Your task to perform on an android device: delete the emails in spam in the gmail app Image 0: 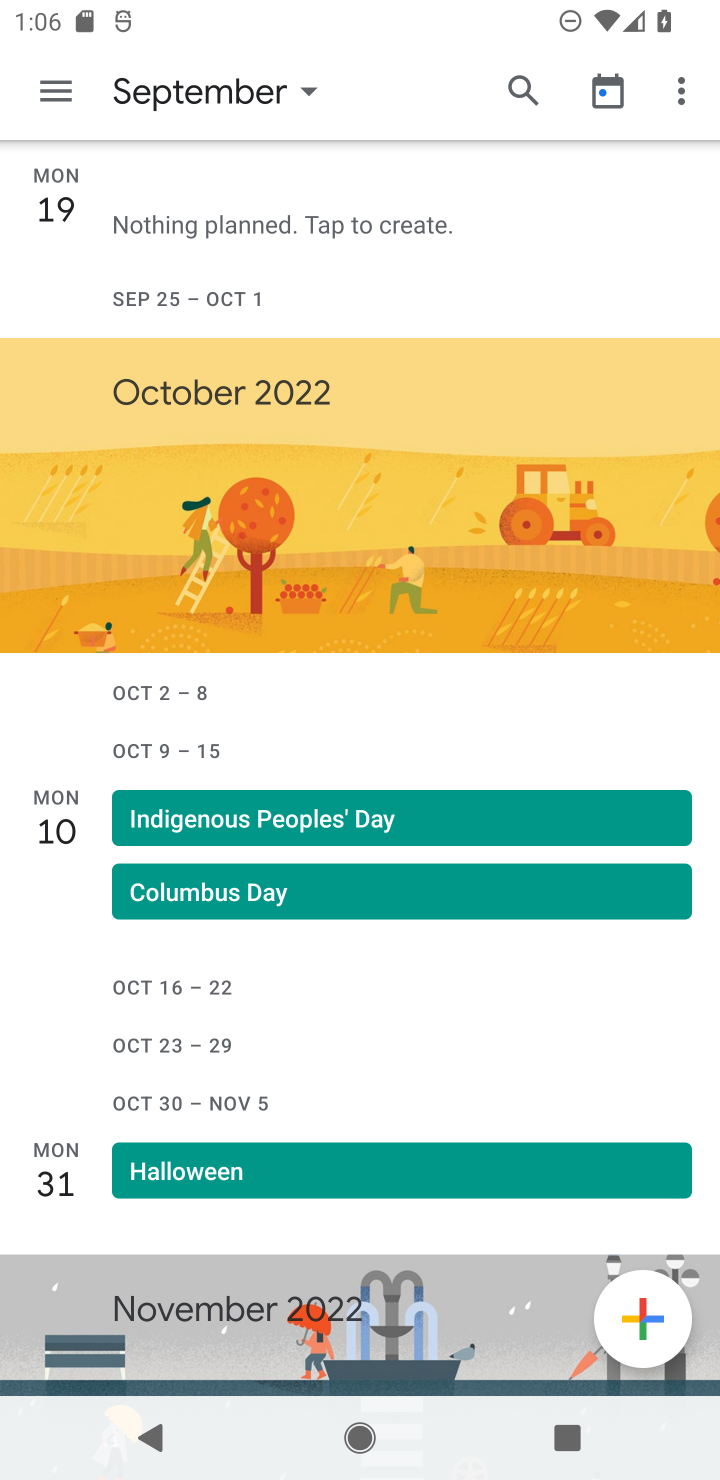
Step 0: press home button
Your task to perform on an android device: delete the emails in spam in the gmail app Image 1: 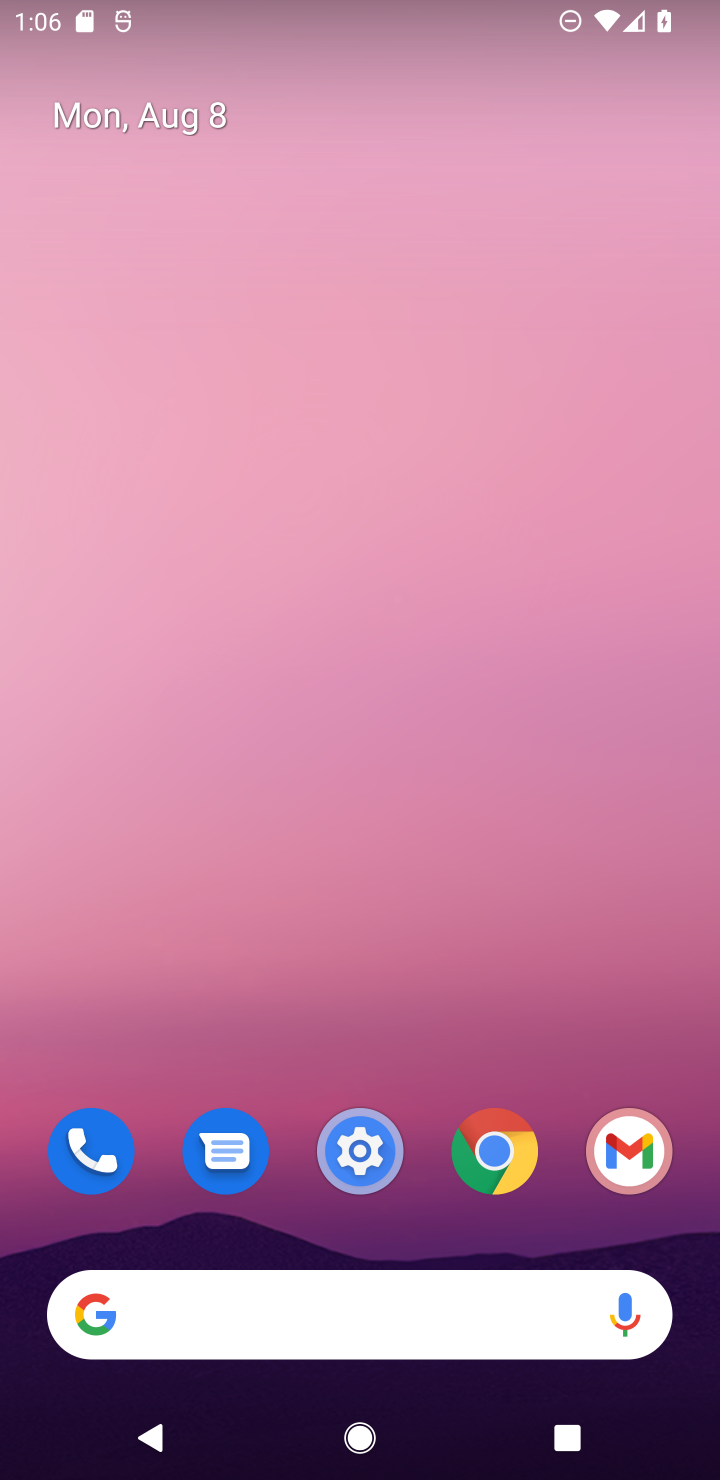
Step 1: click (657, 1149)
Your task to perform on an android device: delete the emails in spam in the gmail app Image 2: 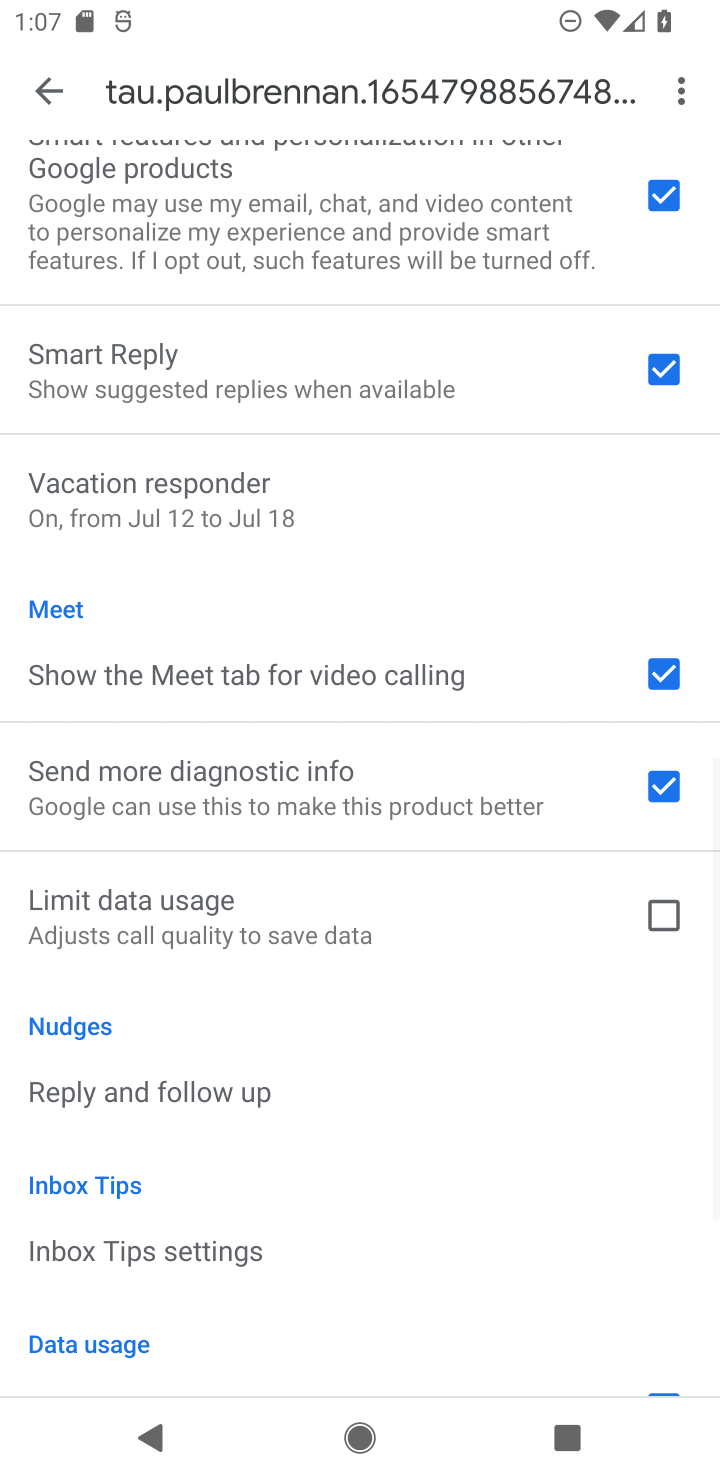
Step 2: click (51, 86)
Your task to perform on an android device: delete the emails in spam in the gmail app Image 3: 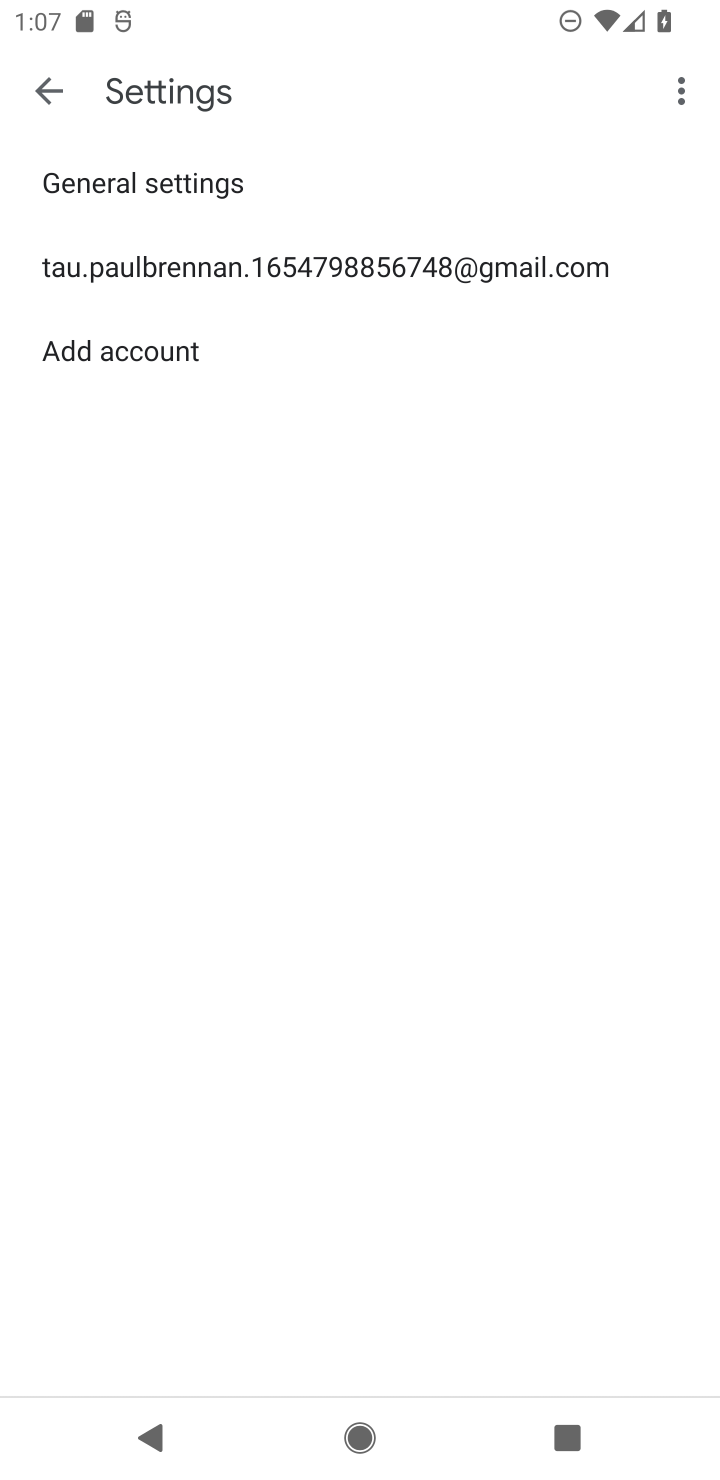
Step 3: click (41, 82)
Your task to perform on an android device: delete the emails in spam in the gmail app Image 4: 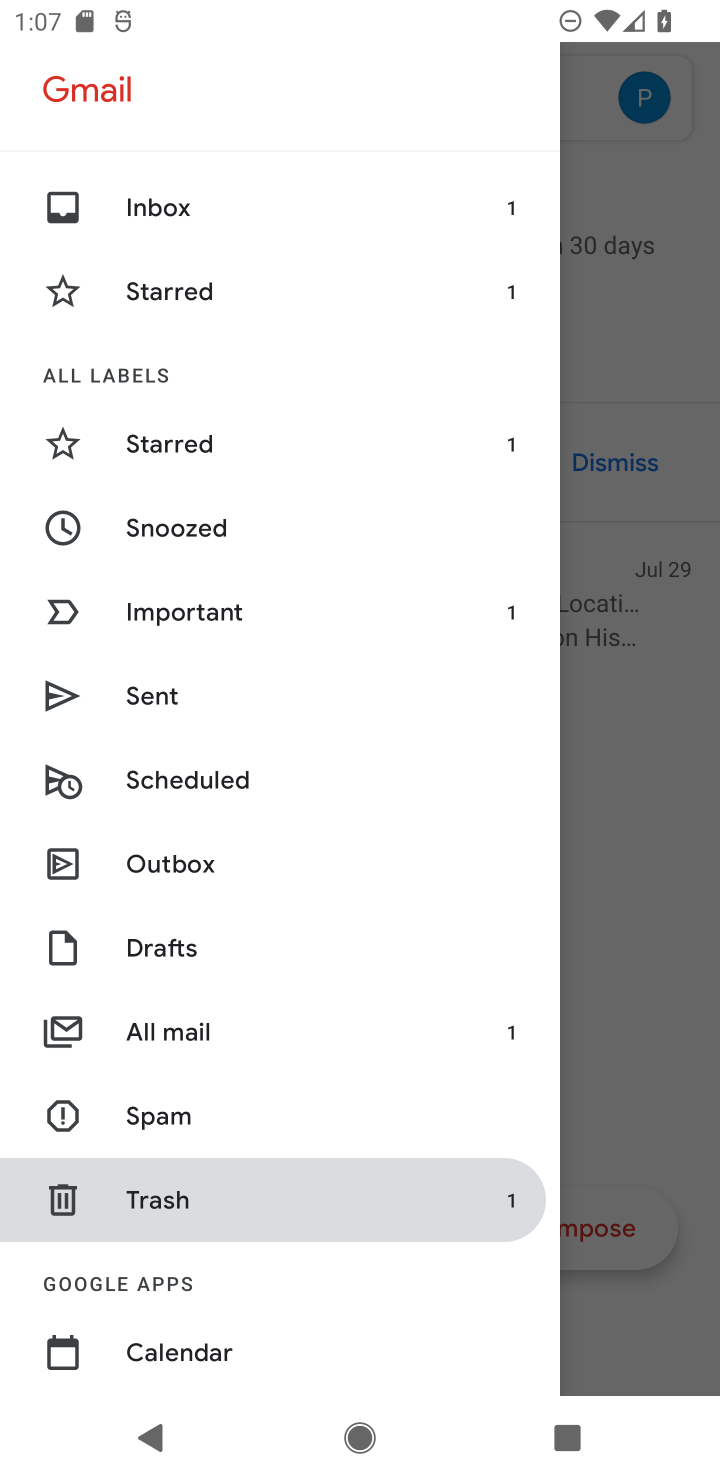
Step 4: click (154, 1124)
Your task to perform on an android device: delete the emails in spam in the gmail app Image 5: 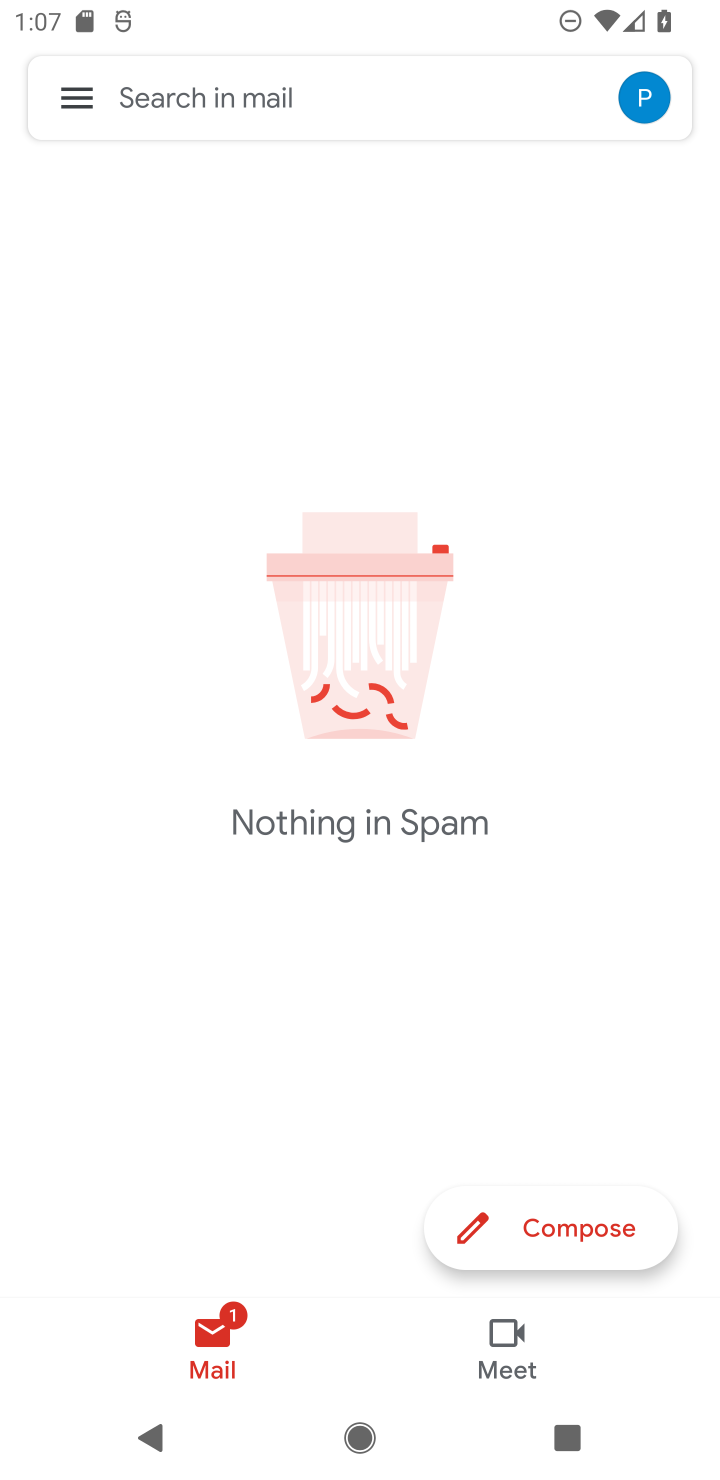
Step 5: task complete